Your task to perform on an android device: Go to wifi settings Image 0: 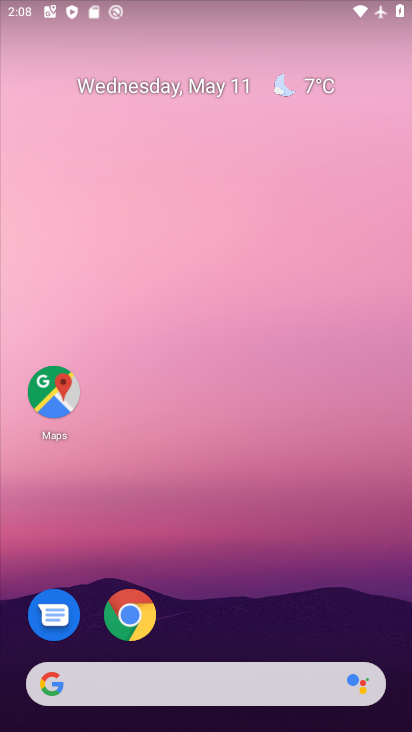
Step 0: drag from (250, 518) to (319, 51)
Your task to perform on an android device: Go to wifi settings Image 1: 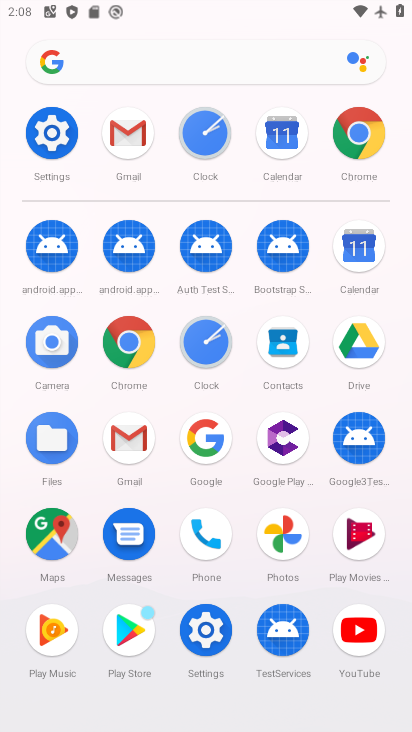
Step 1: click (53, 123)
Your task to perform on an android device: Go to wifi settings Image 2: 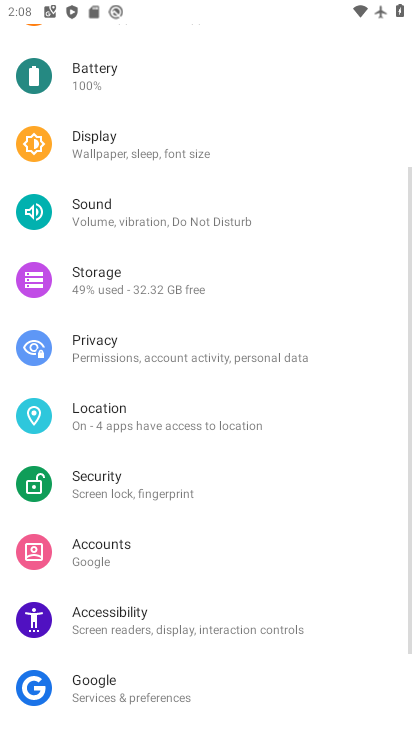
Step 2: drag from (224, 93) to (206, 598)
Your task to perform on an android device: Go to wifi settings Image 3: 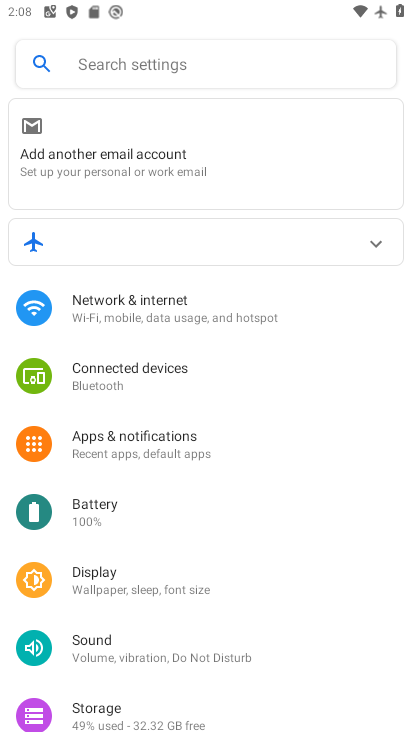
Step 3: click (164, 302)
Your task to perform on an android device: Go to wifi settings Image 4: 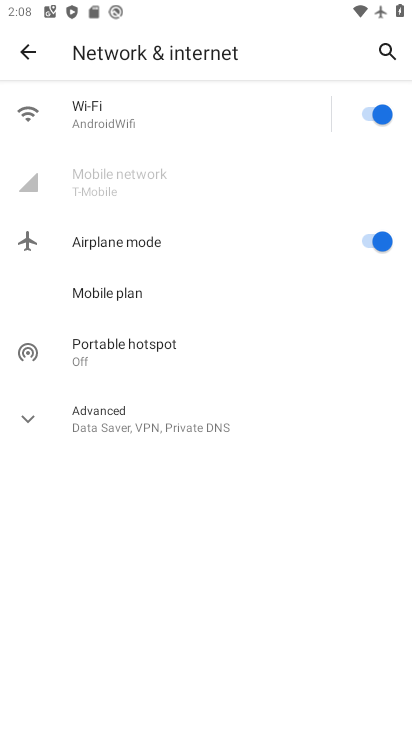
Step 4: click (197, 101)
Your task to perform on an android device: Go to wifi settings Image 5: 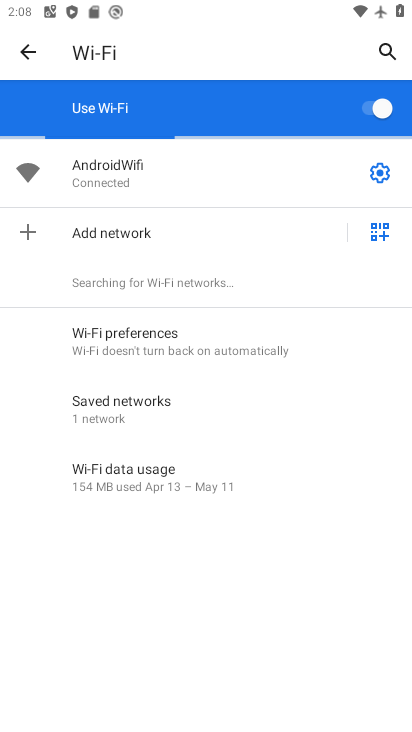
Step 5: click (381, 177)
Your task to perform on an android device: Go to wifi settings Image 6: 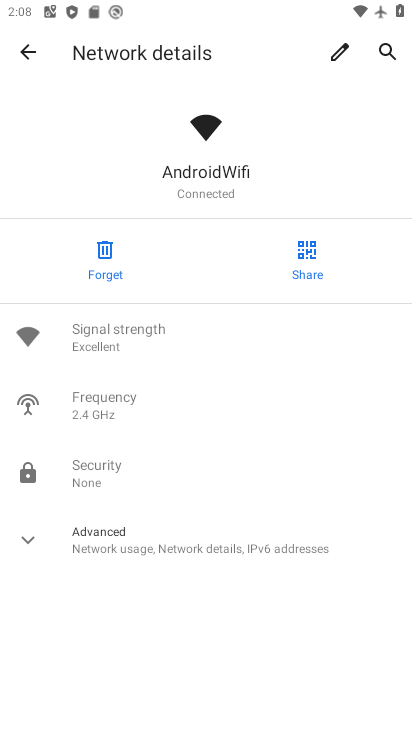
Step 6: task complete